Your task to perform on an android device: turn on wifi Image 0: 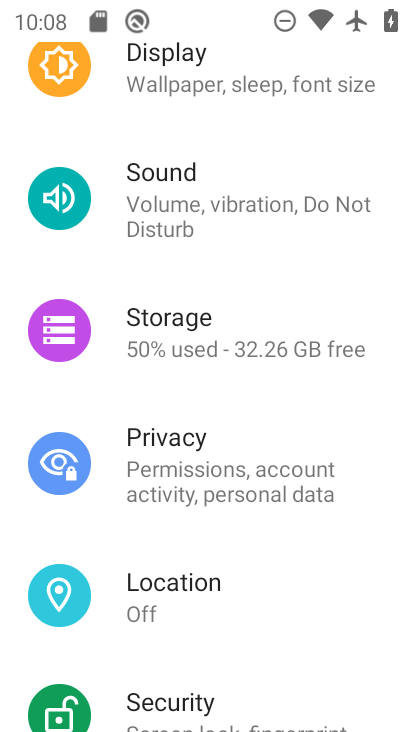
Step 0: drag from (300, 128) to (355, 596)
Your task to perform on an android device: turn on wifi Image 1: 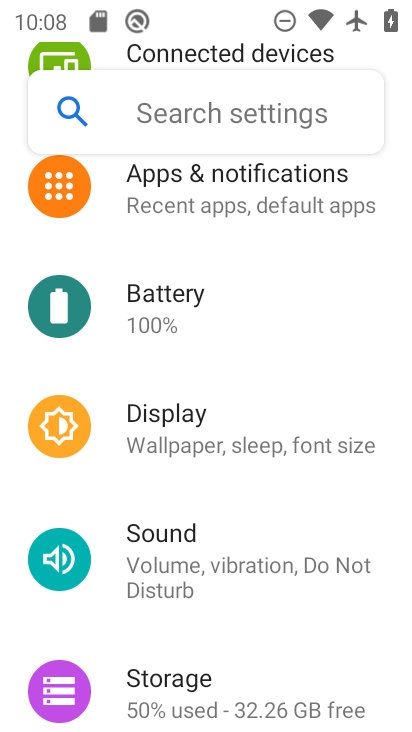
Step 1: drag from (313, 233) to (353, 581)
Your task to perform on an android device: turn on wifi Image 2: 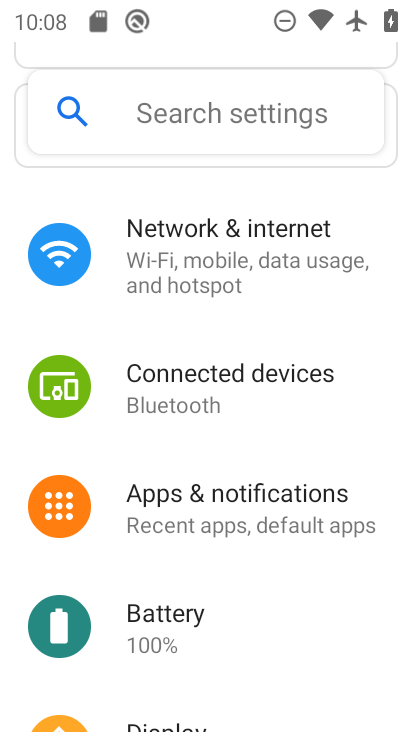
Step 2: click (165, 243)
Your task to perform on an android device: turn on wifi Image 3: 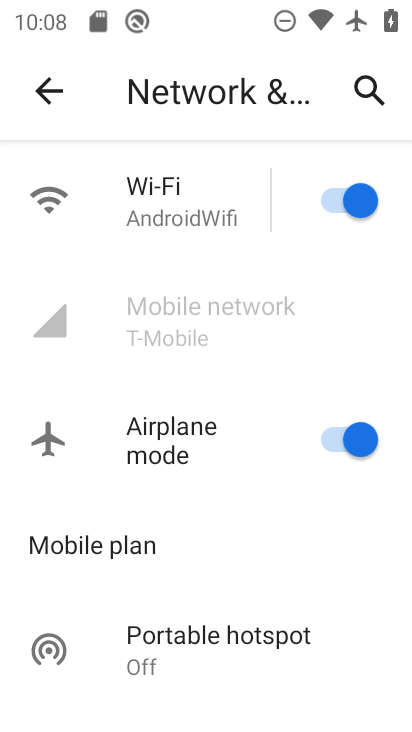
Step 3: task complete